Your task to perform on an android device: Open privacy settings Image 0: 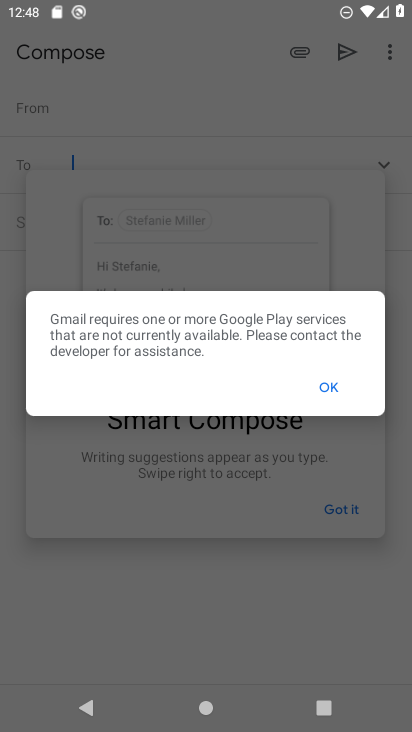
Step 0: drag from (201, 617) to (286, 269)
Your task to perform on an android device: Open privacy settings Image 1: 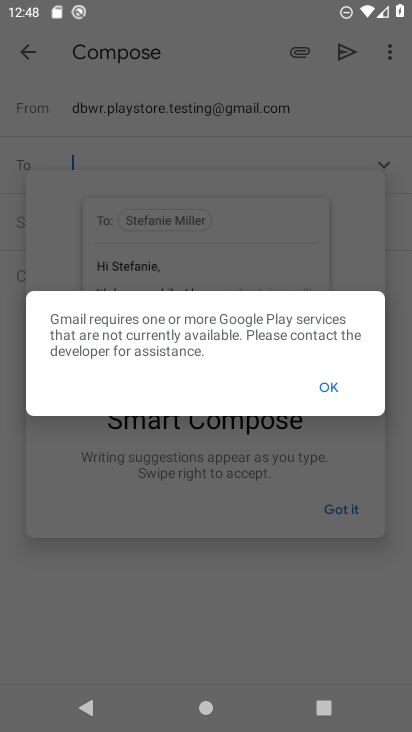
Step 1: press home button
Your task to perform on an android device: Open privacy settings Image 2: 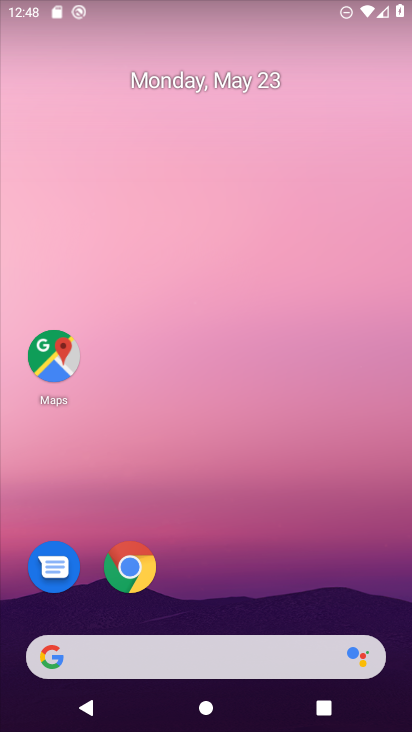
Step 2: drag from (141, 618) to (197, 199)
Your task to perform on an android device: Open privacy settings Image 3: 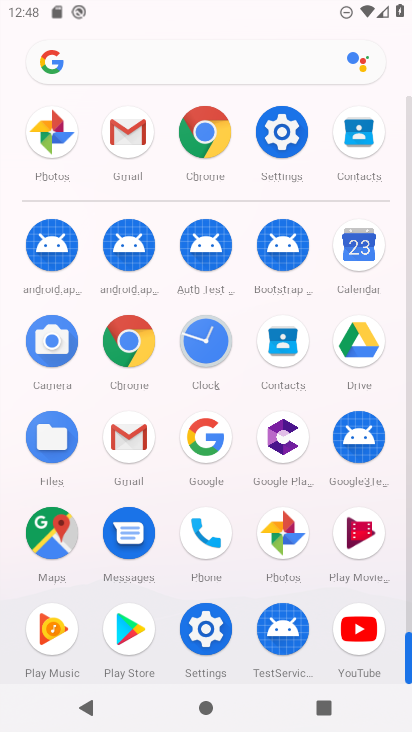
Step 3: click (256, 142)
Your task to perform on an android device: Open privacy settings Image 4: 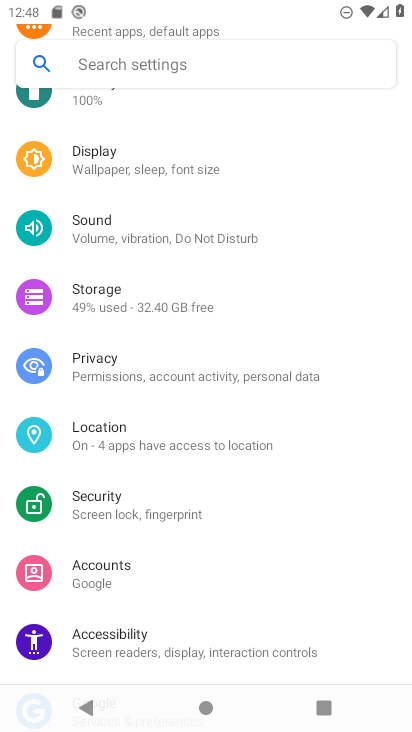
Step 4: click (98, 389)
Your task to perform on an android device: Open privacy settings Image 5: 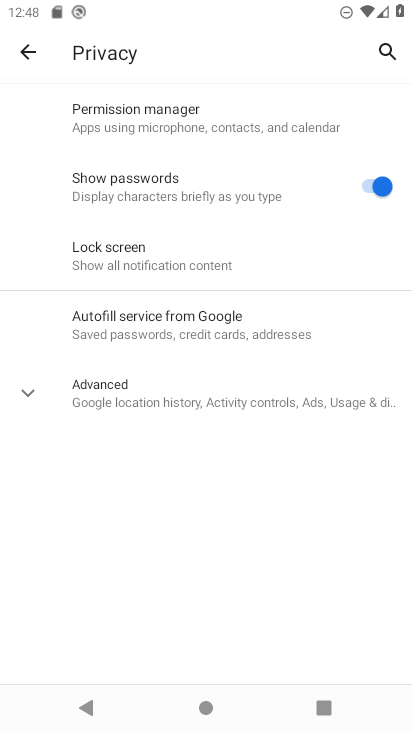
Step 5: task complete